Your task to perform on an android device: toggle sleep mode Image 0: 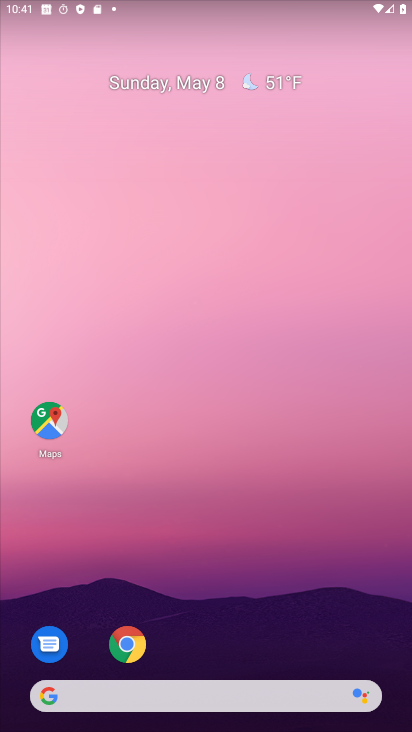
Step 0: drag from (206, 652) to (225, 257)
Your task to perform on an android device: toggle sleep mode Image 1: 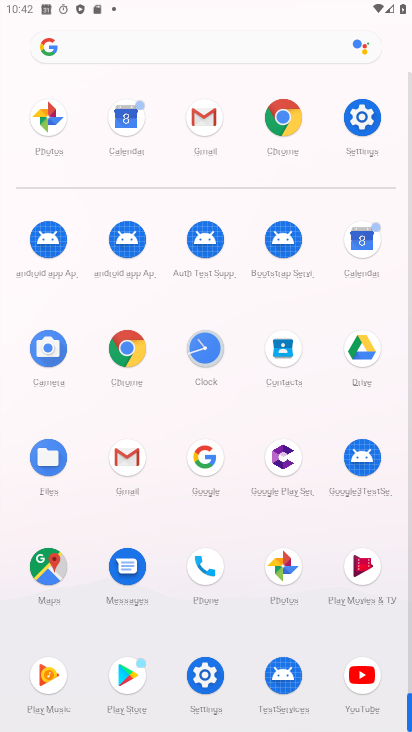
Step 1: click (355, 132)
Your task to perform on an android device: toggle sleep mode Image 2: 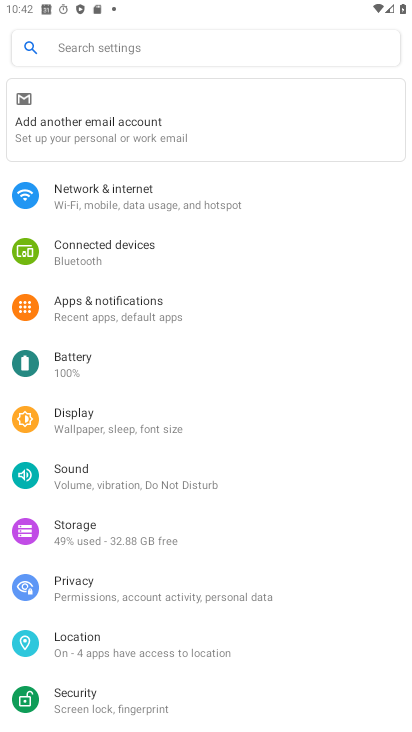
Step 2: click (151, 407)
Your task to perform on an android device: toggle sleep mode Image 3: 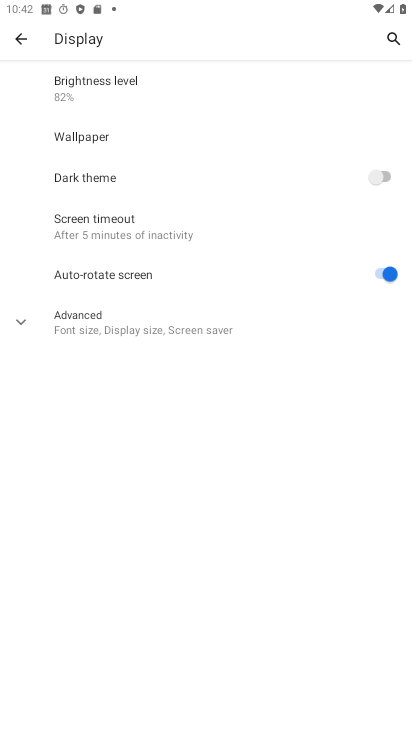
Step 3: click (146, 223)
Your task to perform on an android device: toggle sleep mode Image 4: 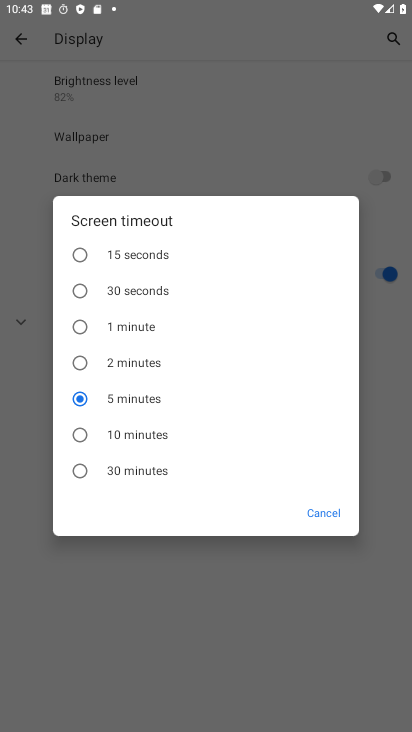
Step 4: task complete